Your task to perform on an android device: What's the weather? Image 0: 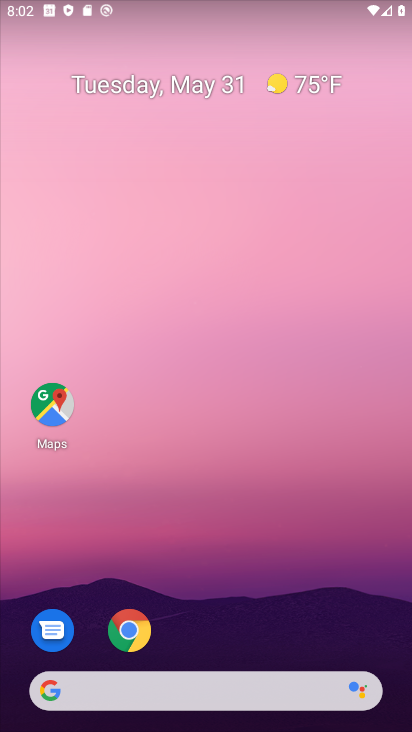
Step 0: drag from (253, 662) to (271, 211)
Your task to perform on an android device: What's the weather? Image 1: 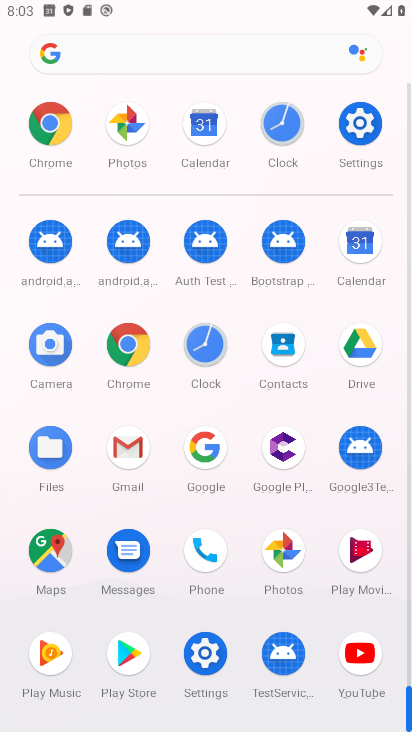
Step 1: click (217, 453)
Your task to perform on an android device: What's the weather? Image 2: 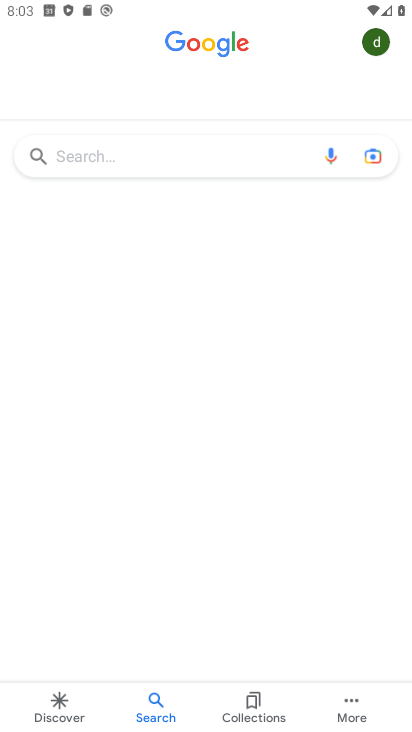
Step 2: click (148, 158)
Your task to perform on an android device: What's the weather? Image 3: 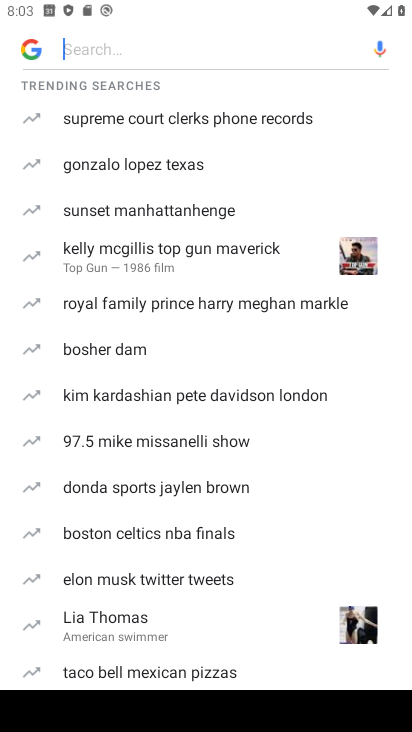
Step 3: type "weather"
Your task to perform on an android device: What's the weather? Image 4: 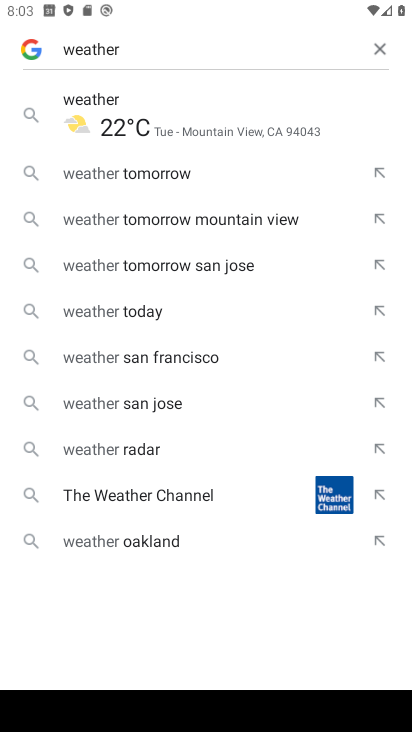
Step 4: click (205, 118)
Your task to perform on an android device: What's the weather? Image 5: 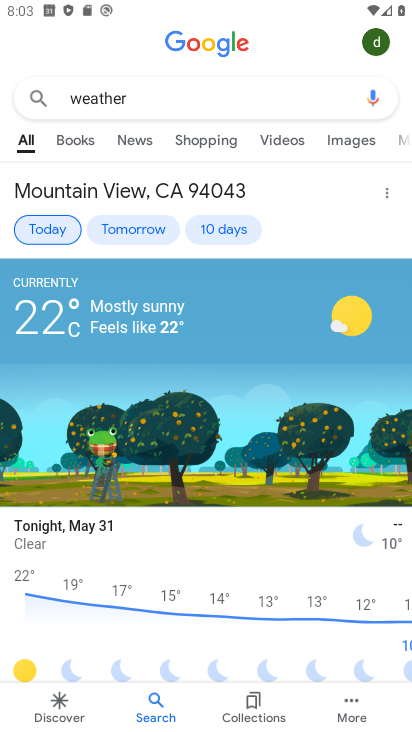
Step 5: task complete